Your task to perform on an android device: turn off sleep mode Image 0: 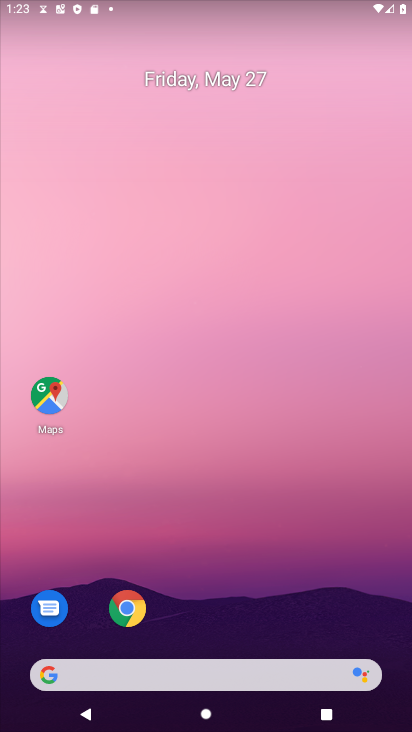
Step 0: drag from (187, 633) to (280, 45)
Your task to perform on an android device: turn off sleep mode Image 1: 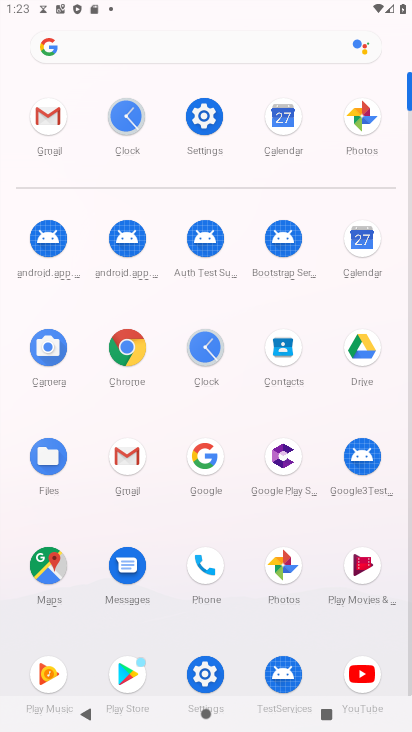
Step 1: click (212, 106)
Your task to perform on an android device: turn off sleep mode Image 2: 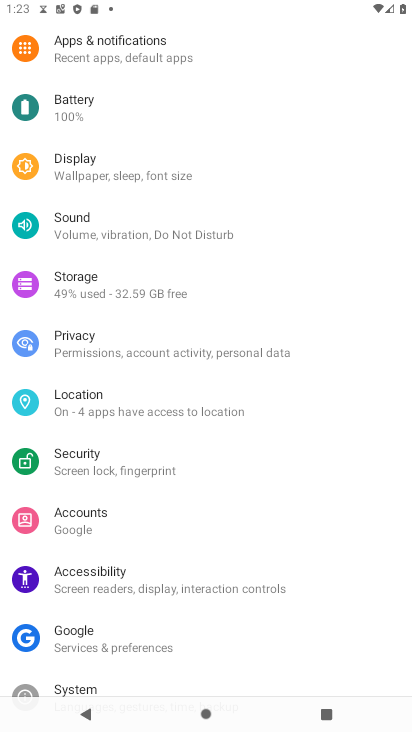
Step 2: drag from (145, 80) to (137, 683)
Your task to perform on an android device: turn off sleep mode Image 3: 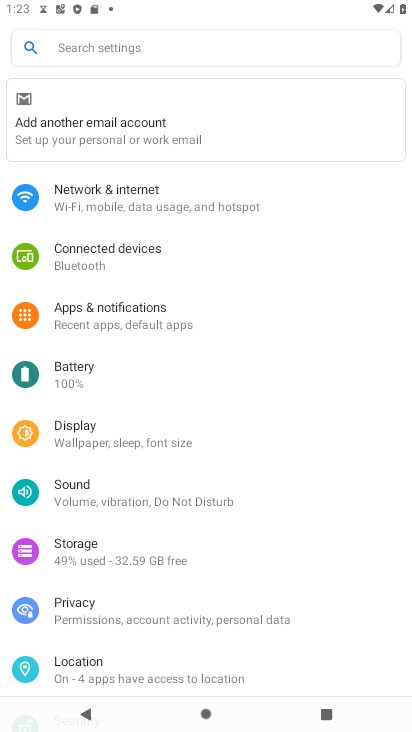
Step 3: click (126, 41)
Your task to perform on an android device: turn off sleep mode Image 4: 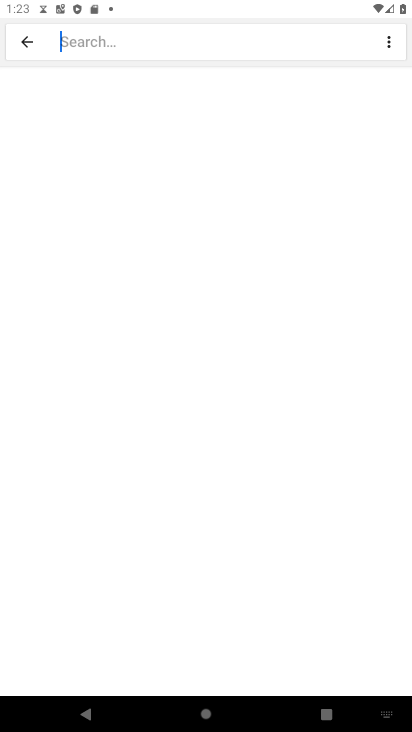
Step 4: type "sleep mode"
Your task to perform on an android device: turn off sleep mode Image 5: 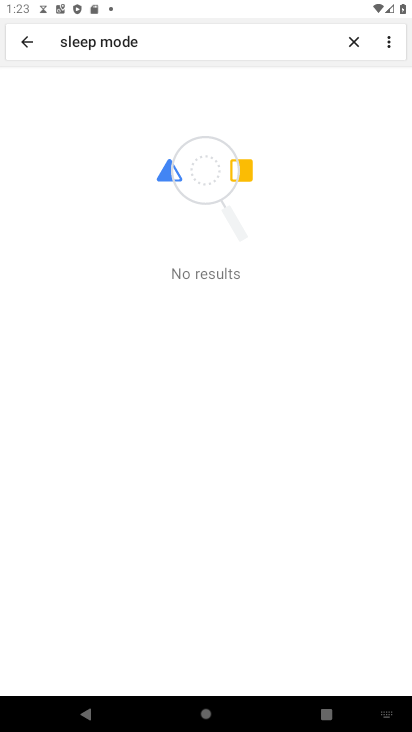
Step 5: task complete